Your task to perform on an android device: turn on the 12-hour format for clock Image 0: 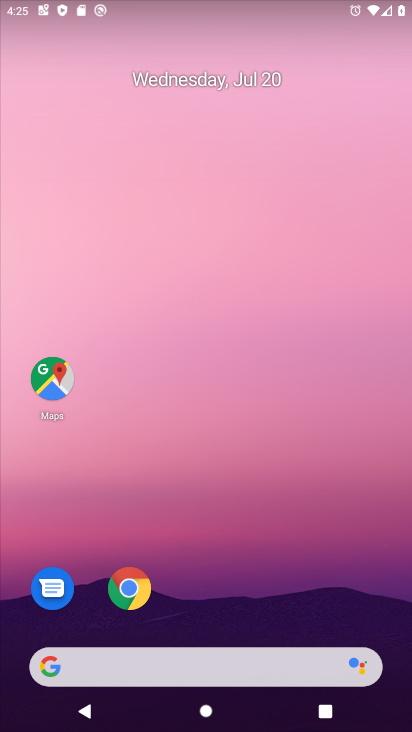
Step 0: drag from (281, 513) to (312, 52)
Your task to perform on an android device: turn on the 12-hour format for clock Image 1: 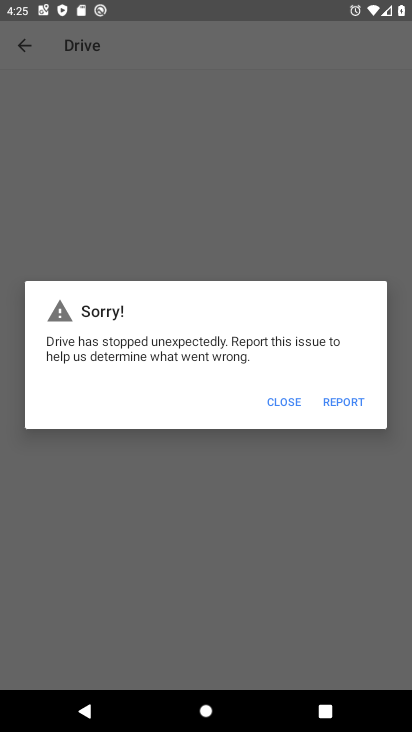
Step 1: click (264, 200)
Your task to perform on an android device: turn on the 12-hour format for clock Image 2: 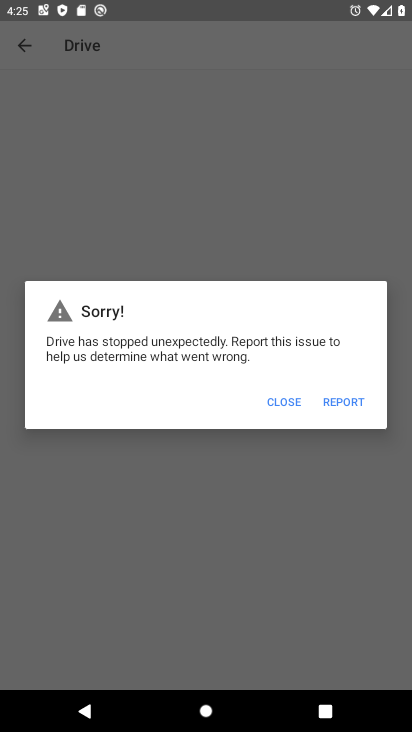
Step 2: press home button
Your task to perform on an android device: turn on the 12-hour format for clock Image 3: 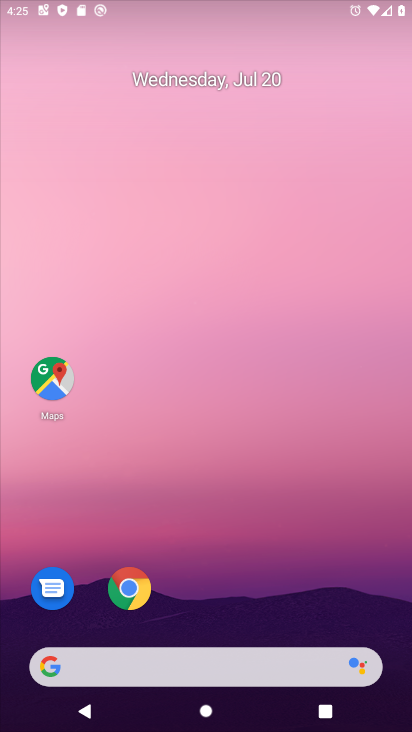
Step 3: drag from (308, 595) to (318, 131)
Your task to perform on an android device: turn on the 12-hour format for clock Image 4: 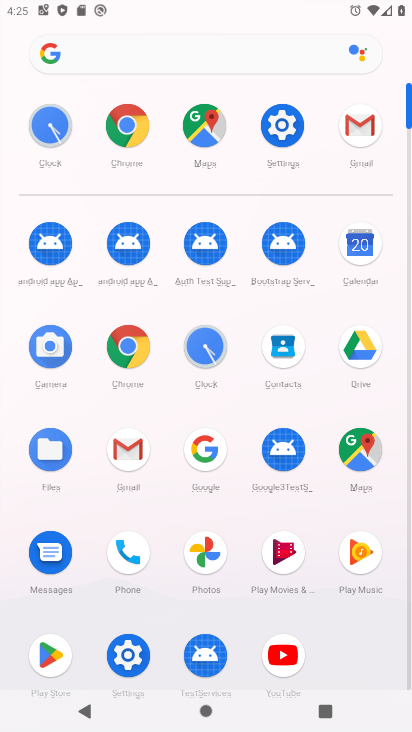
Step 4: click (208, 343)
Your task to perform on an android device: turn on the 12-hour format for clock Image 5: 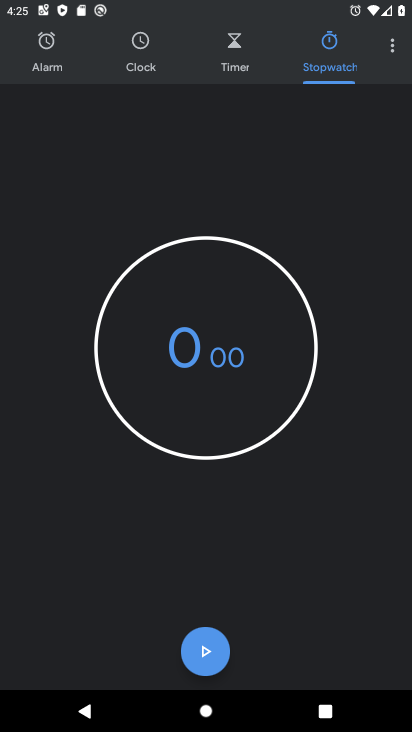
Step 5: click (392, 49)
Your task to perform on an android device: turn on the 12-hour format for clock Image 6: 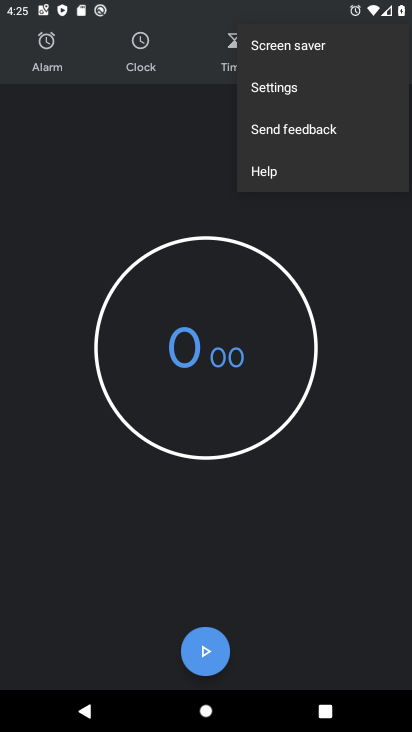
Step 6: click (295, 96)
Your task to perform on an android device: turn on the 12-hour format for clock Image 7: 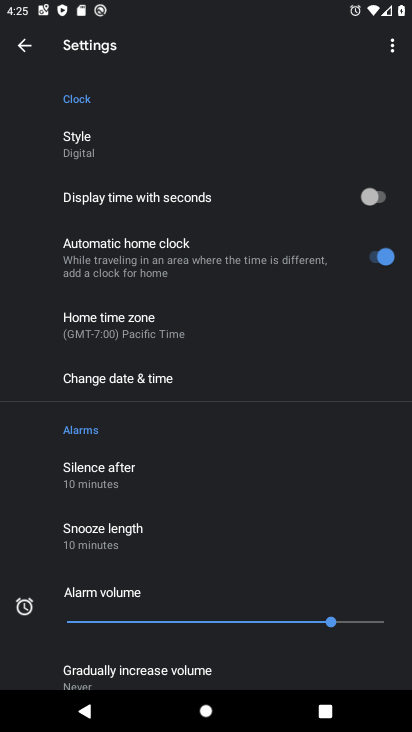
Step 7: click (134, 381)
Your task to perform on an android device: turn on the 12-hour format for clock Image 8: 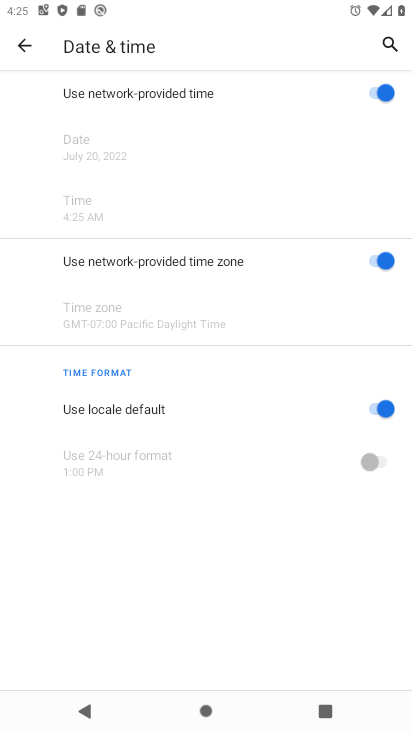
Step 8: task complete